Your task to perform on an android device: When is my next meeting? Image 0: 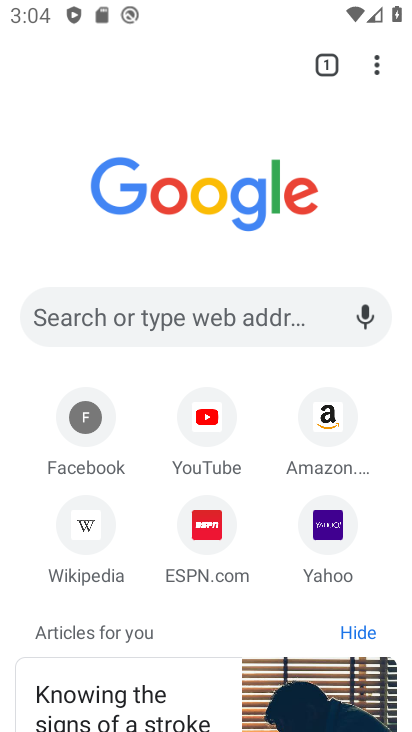
Step 0: press home button
Your task to perform on an android device: When is my next meeting? Image 1: 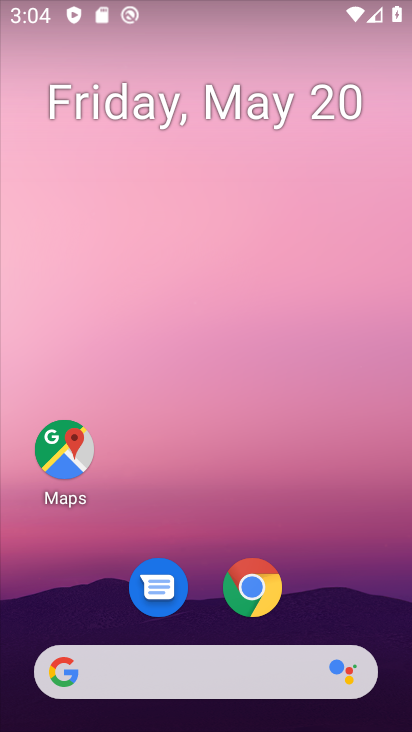
Step 1: drag from (387, 578) to (361, 74)
Your task to perform on an android device: When is my next meeting? Image 2: 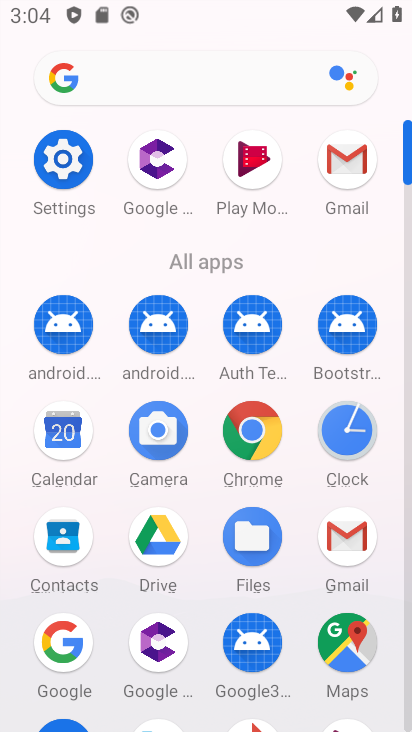
Step 2: click (58, 439)
Your task to perform on an android device: When is my next meeting? Image 3: 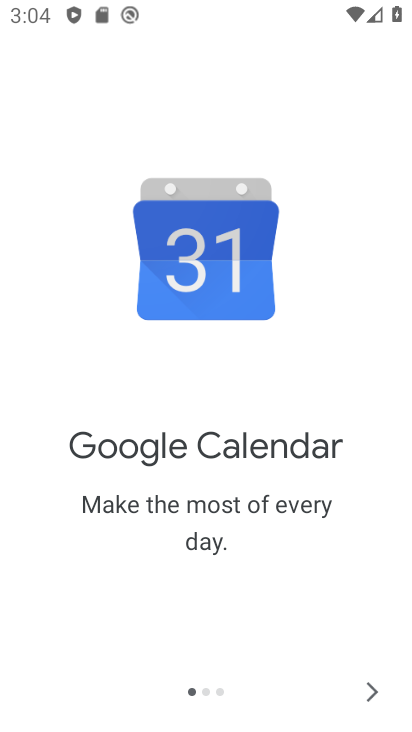
Step 3: click (359, 667)
Your task to perform on an android device: When is my next meeting? Image 4: 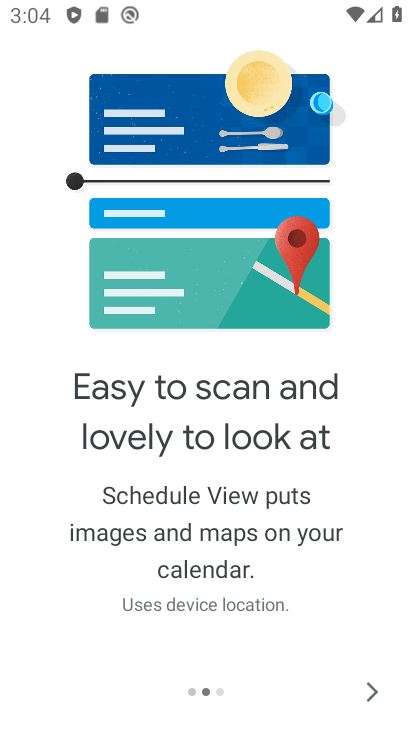
Step 4: click (359, 667)
Your task to perform on an android device: When is my next meeting? Image 5: 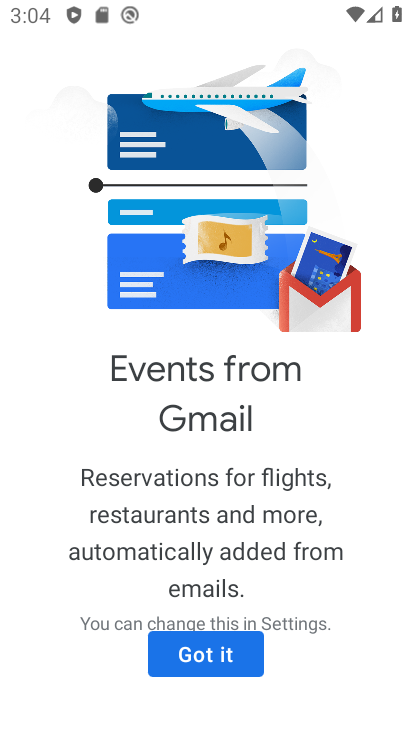
Step 5: click (222, 674)
Your task to perform on an android device: When is my next meeting? Image 6: 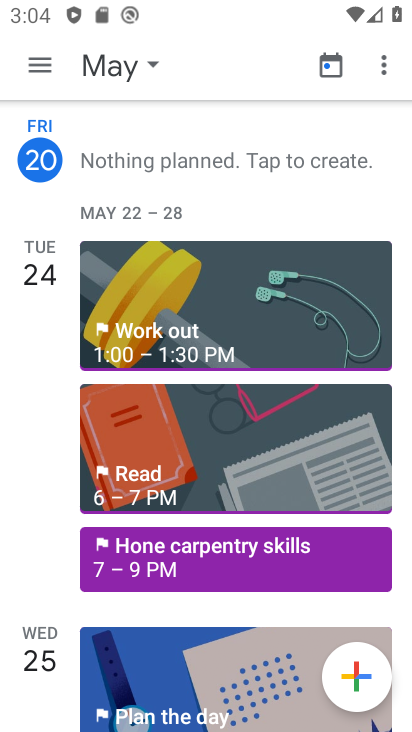
Step 6: click (145, 61)
Your task to perform on an android device: When is my next meeting? Image 7: 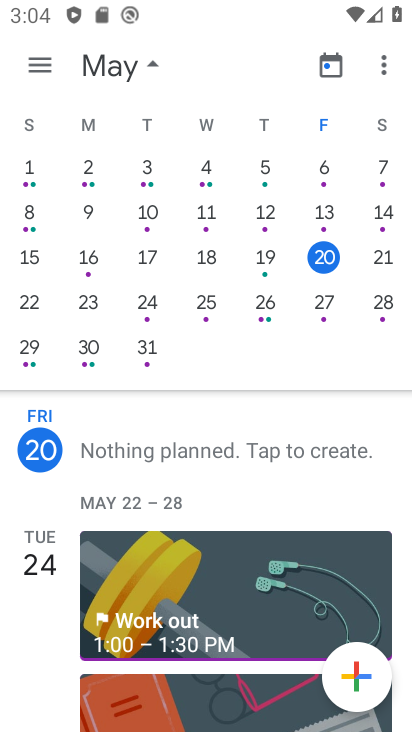
Step 7: click (145, 61)
Your task to perform on an android device: When is my next meeting? Image 8: 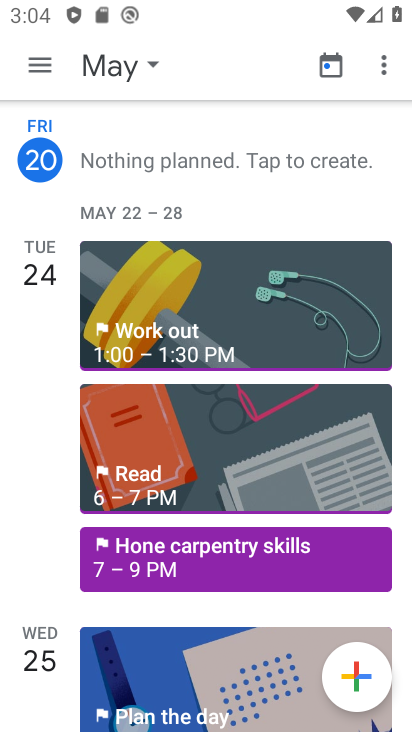
Step 8: task complete